Your task to perform on an android device: Go to internet settings Image 0: 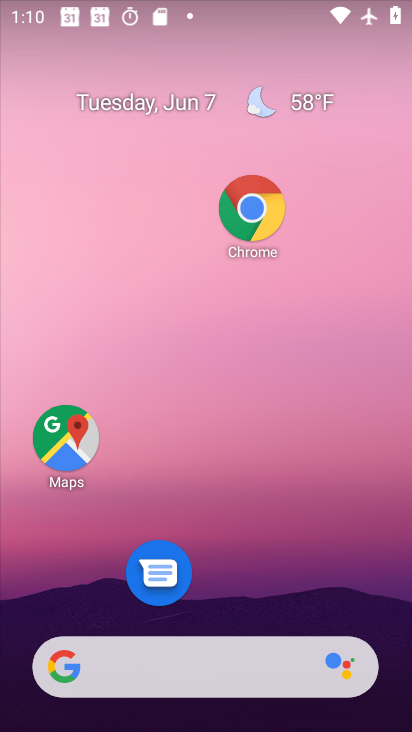
Step 0: drag from (219, 598) to (224, 167)
Your task to perform on an android device: Go to internet settings Image 1: 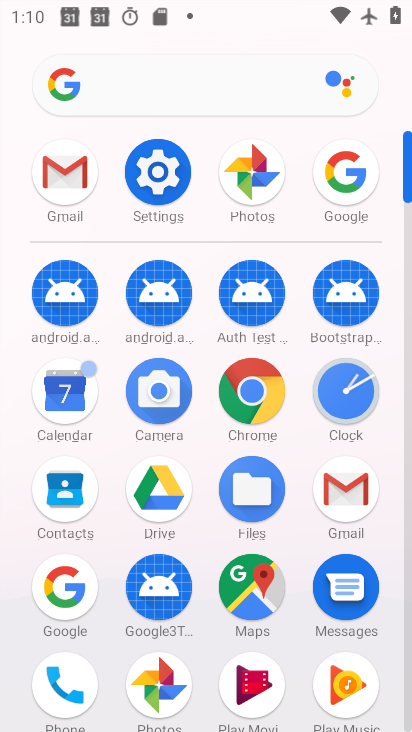
Step 1: click (176, 166)
Your task to perform on an android device: Go to internet settings Image 2: 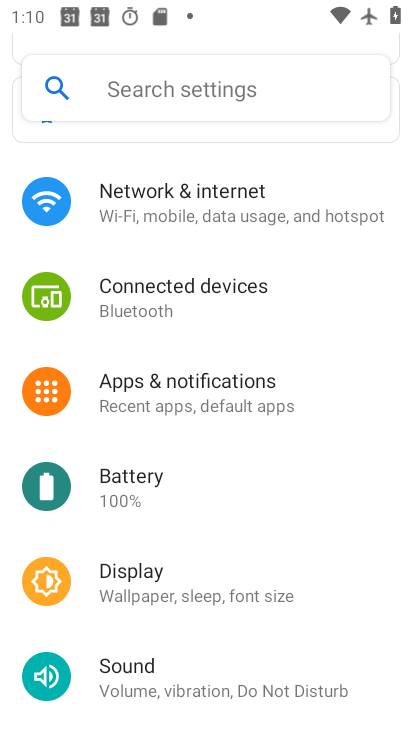
Step 2: click (215, 212)
Your task to perform on an android device: Go to internet settings Image 3: 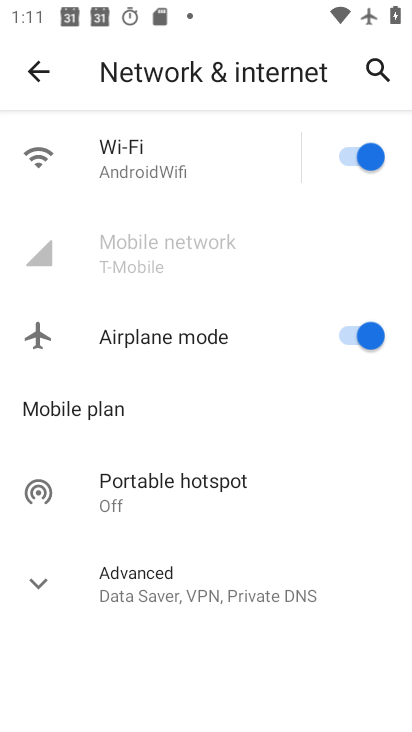
Step 3: task complete